Your task to perform on an android device: Open Android settings Image 0: 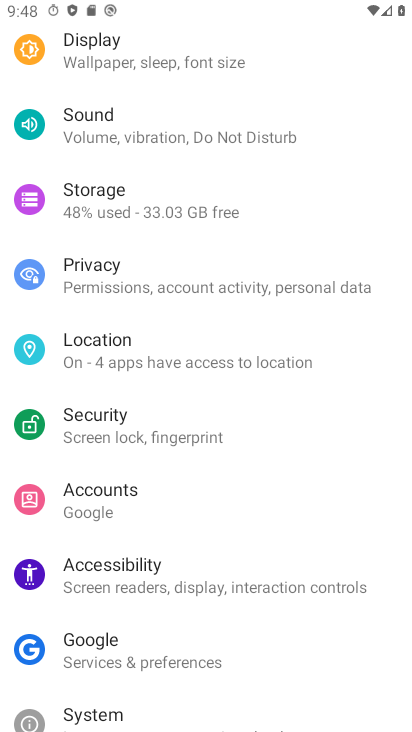
Step 0: drag from (177, 514) to (205, 77)
Your task to perform on an android device: Open Android settings Image 1: 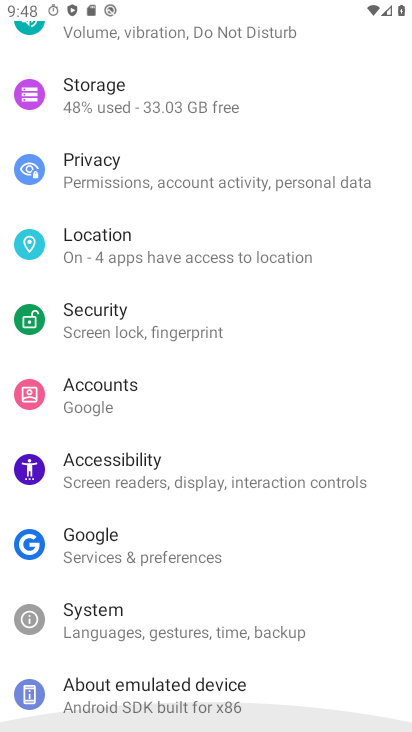
Step 1: drag from (151, 536) to (151, 271)
Your task to perform on an android device: Open Android settings Image 2: 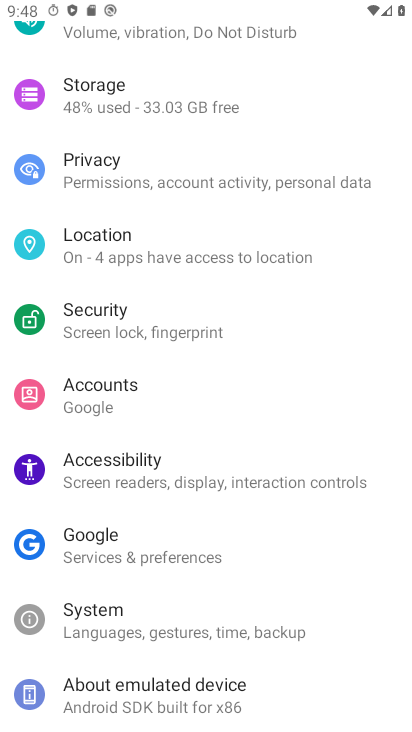
Step 2: click (112, 693)
Your task to perform on an android device: Open Android settings Image 3: 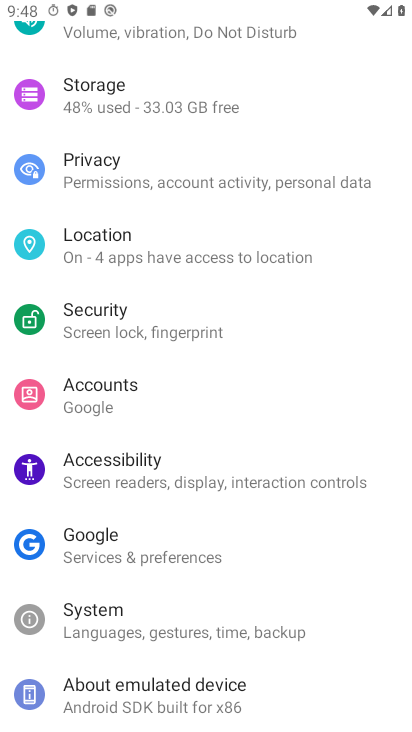
Step 3: click (111, 694)
Your task to perform on an android device: Open Android settings Image 4: 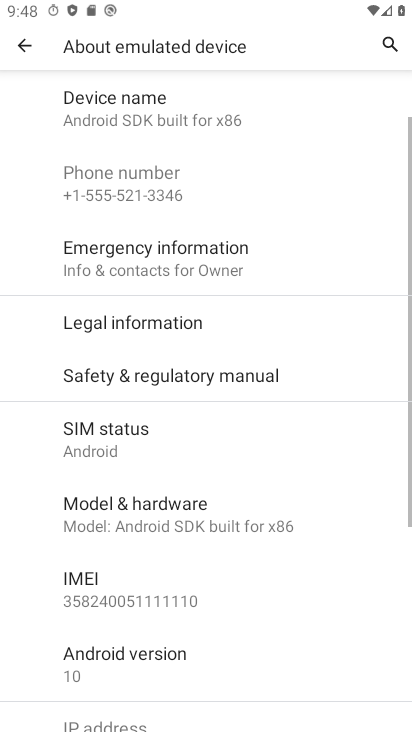
Step 4: task complete